Your task to perform on an android device: Is it going to rain today? Image 0: 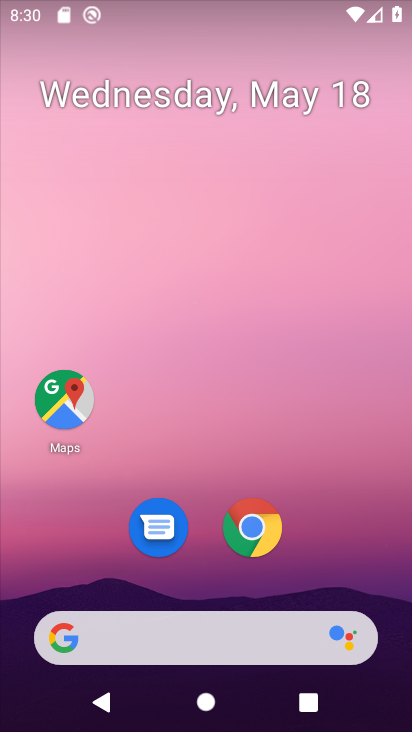
Step 0: click (168, 654)
Your task to perform on an android device: Is it going to rain today? Image 1: 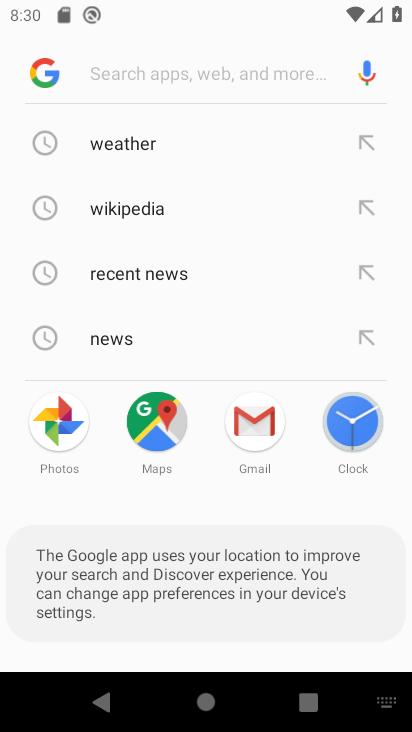
Step 1: click (131, 144)
Your task to perform on an android device: Is it going to rain today? Image 2: 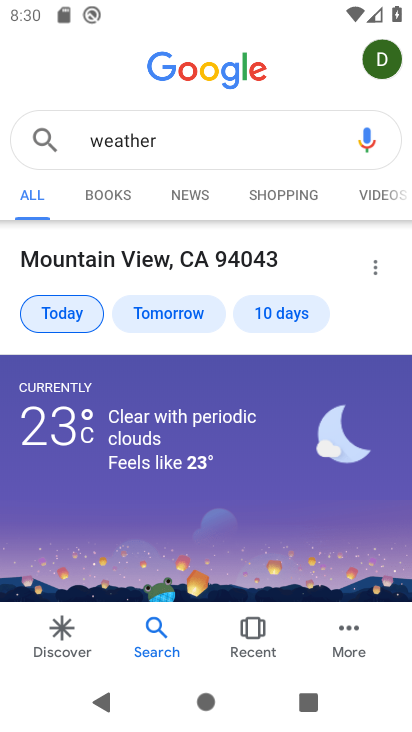
Step 2: task complete